Your task to perform on an android device: see sites visited before in the chrome app Image 0: 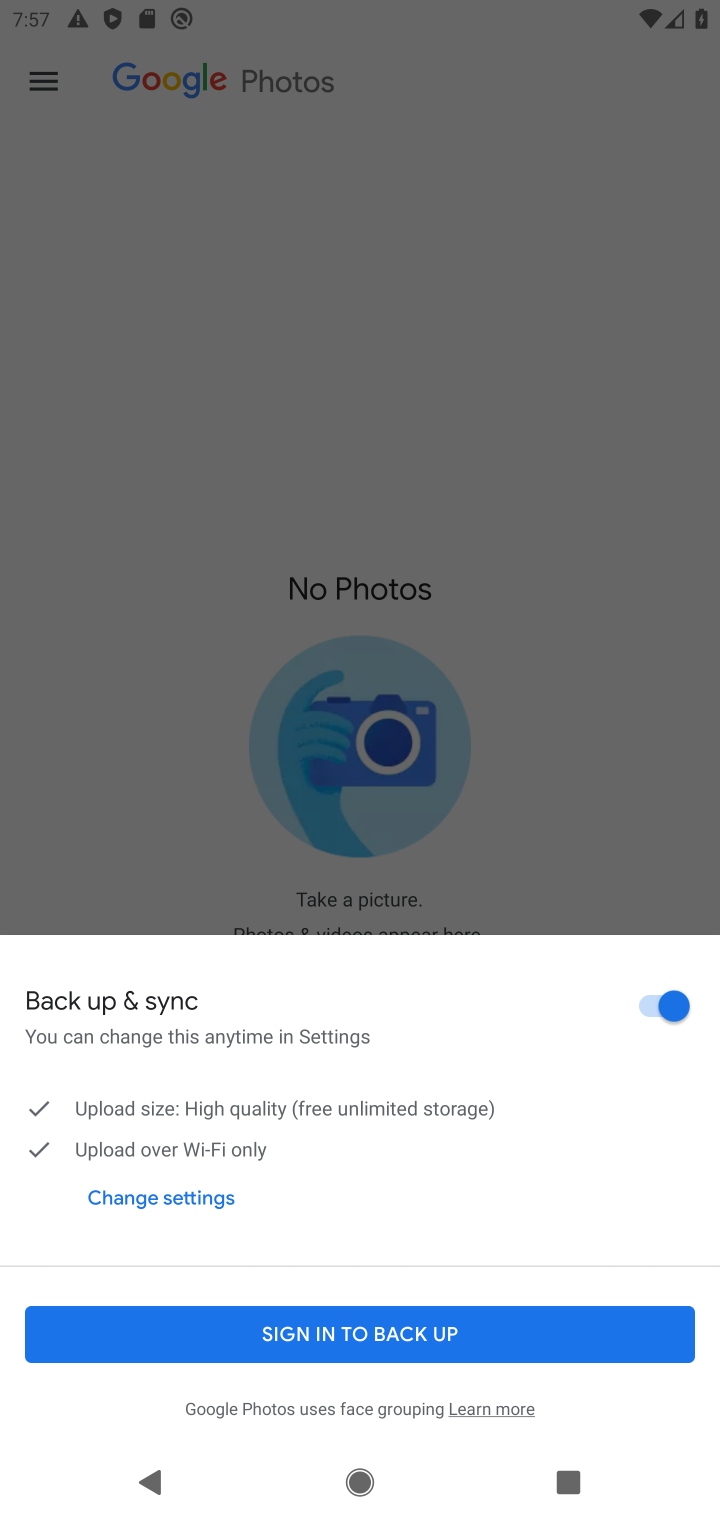
Step 0: press back button
Your task to perform on an android device: see sites visited before in the chrome app Image 1: 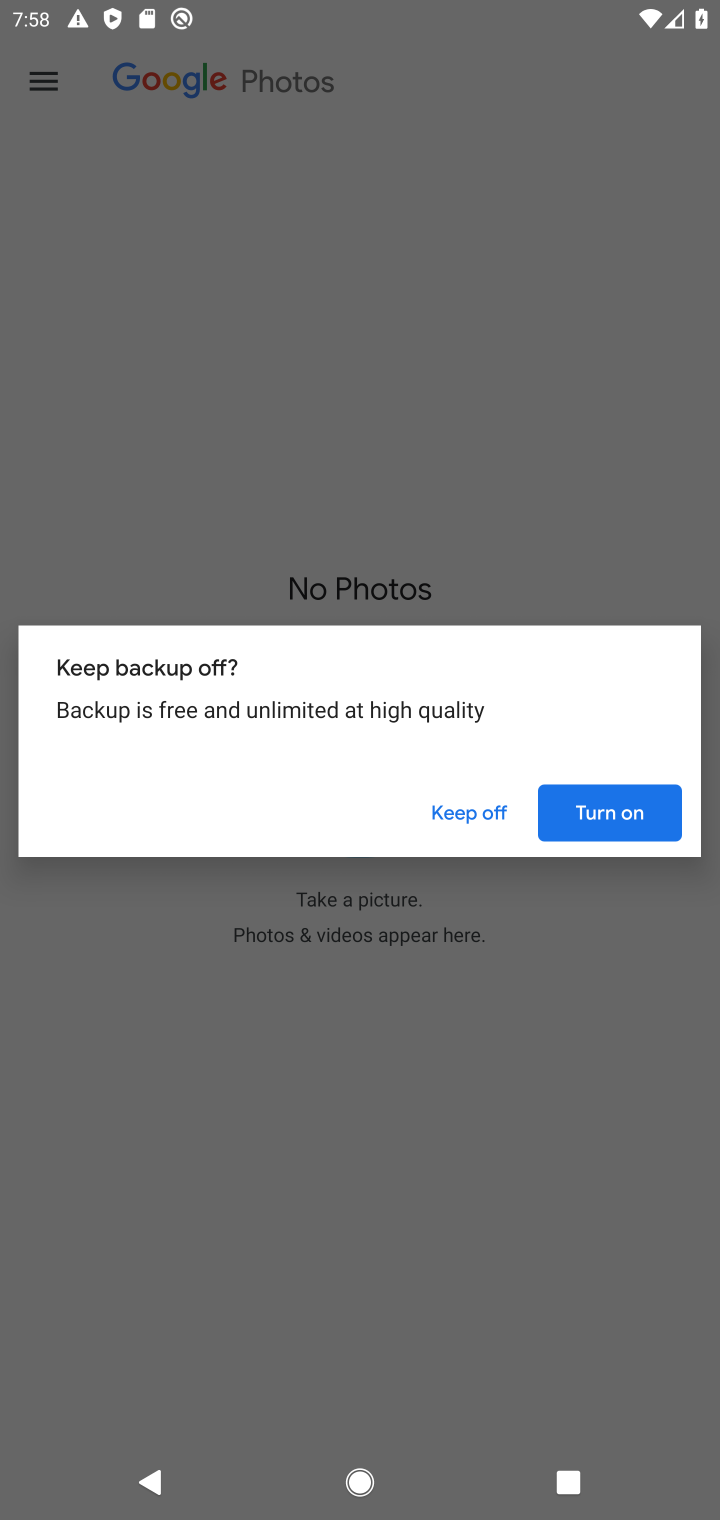
Step 1: press back button
Your task to perform on an android device: see sites visited before in the chrome app Image 2: 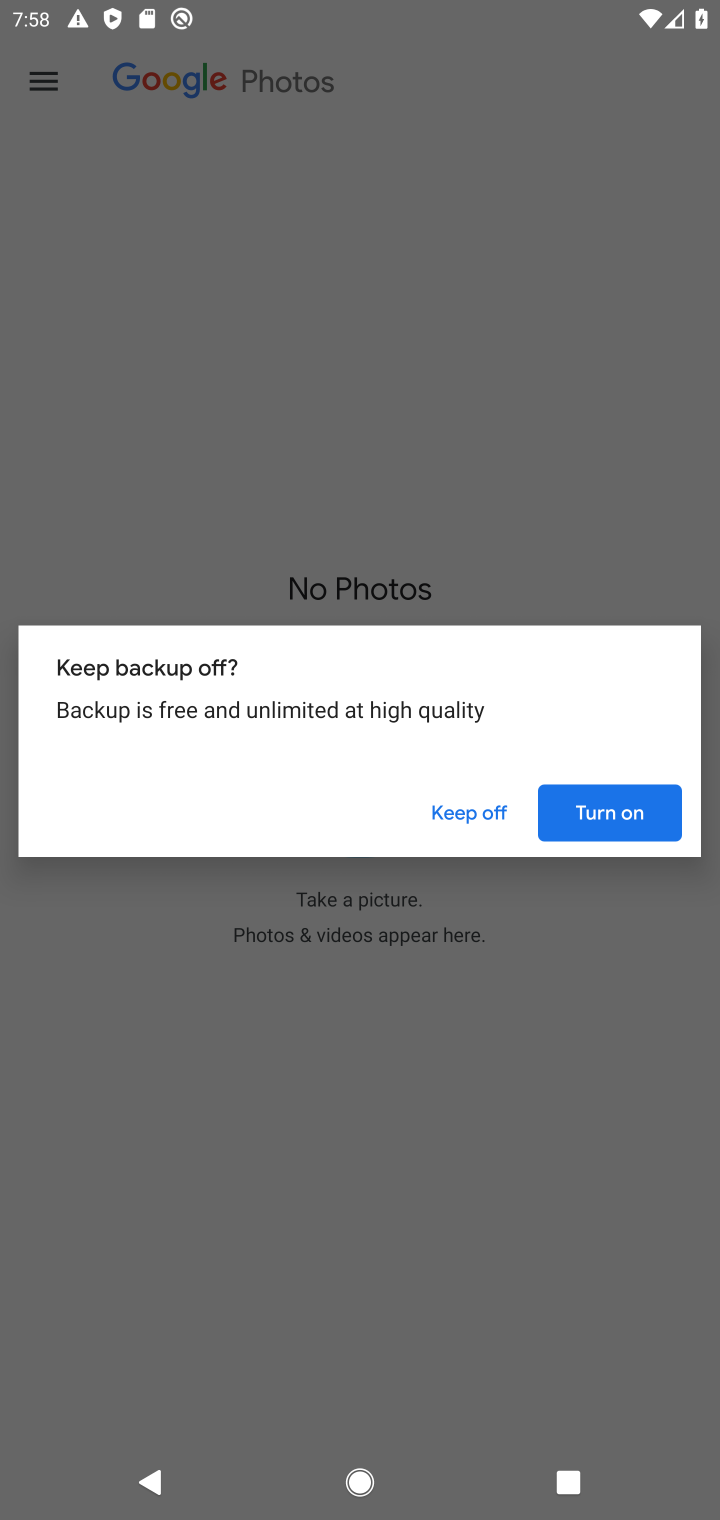
Step 2: press home button
Your task to perform on an android device: see sites visited before in the chrome app Image 3: 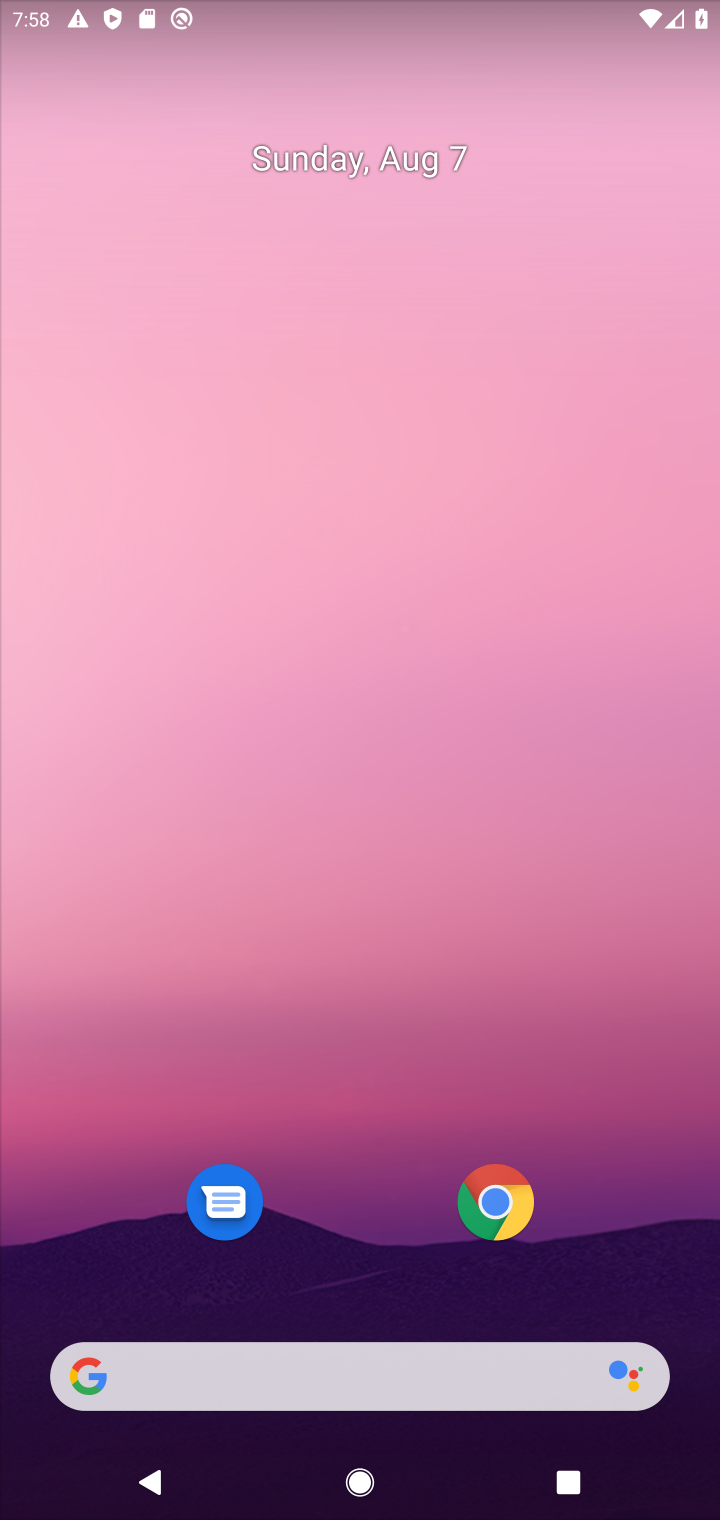
Step 3: click (490, 1223)
Your task to perform on an android device: see sites visited before in the chrome app Image 4: 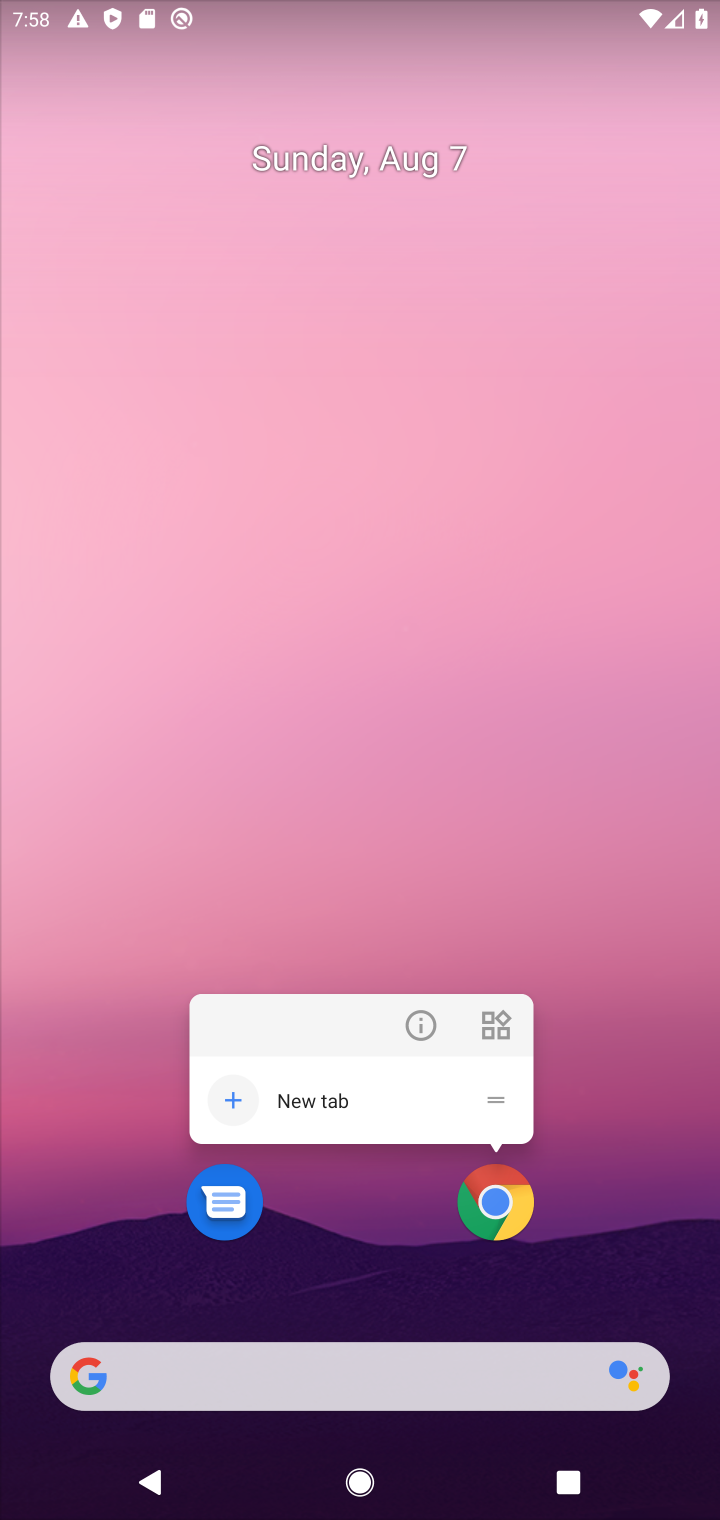
Step 4: click (500, 1217)
Your task to perform on an android device: see sites visited before in the chrome app Image 5: 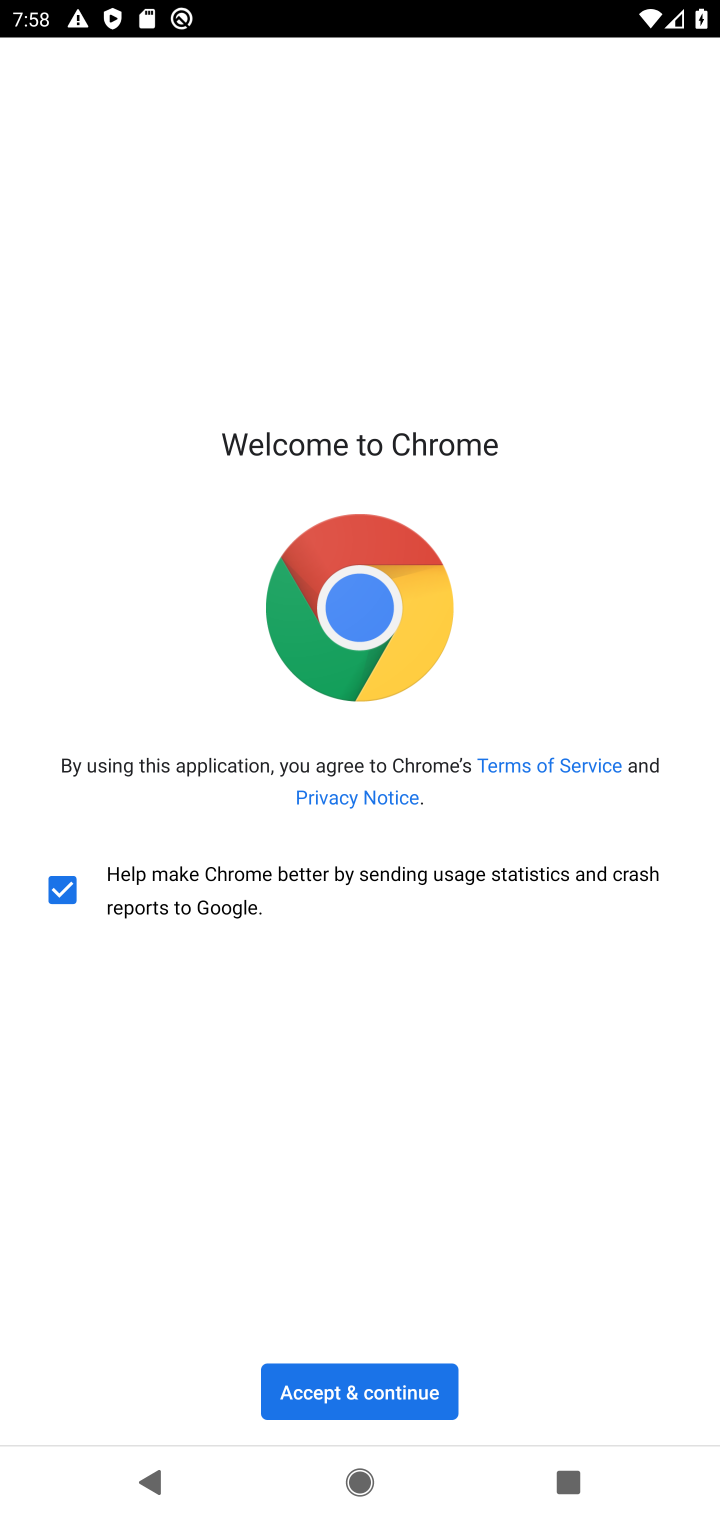
Step 5: click (325, 1393)
Your task to perform on an android device: see sites visited before in the chrome app Image 6: 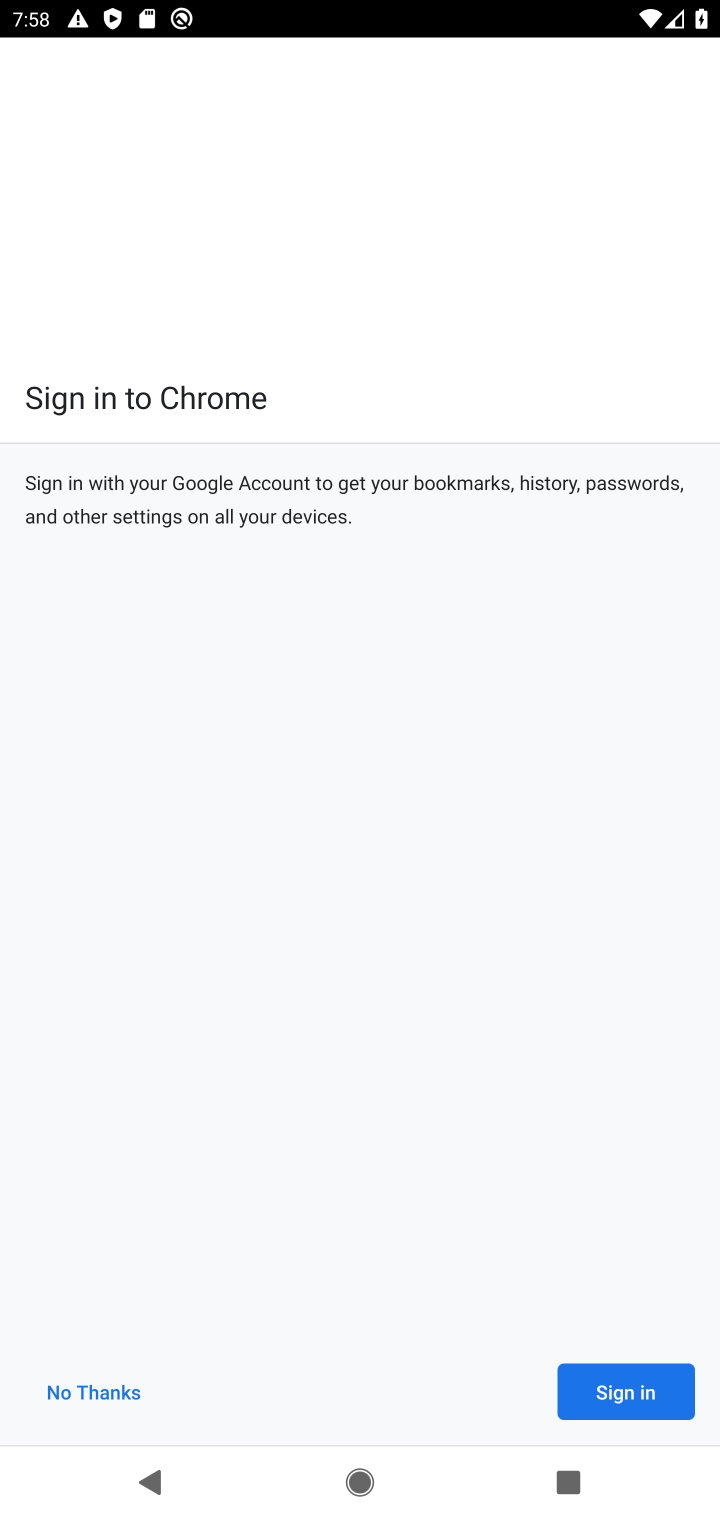
Step 6: click (101, 1389)
Your task to perform on an android device: see sites visited before in the chrome app Image 7: 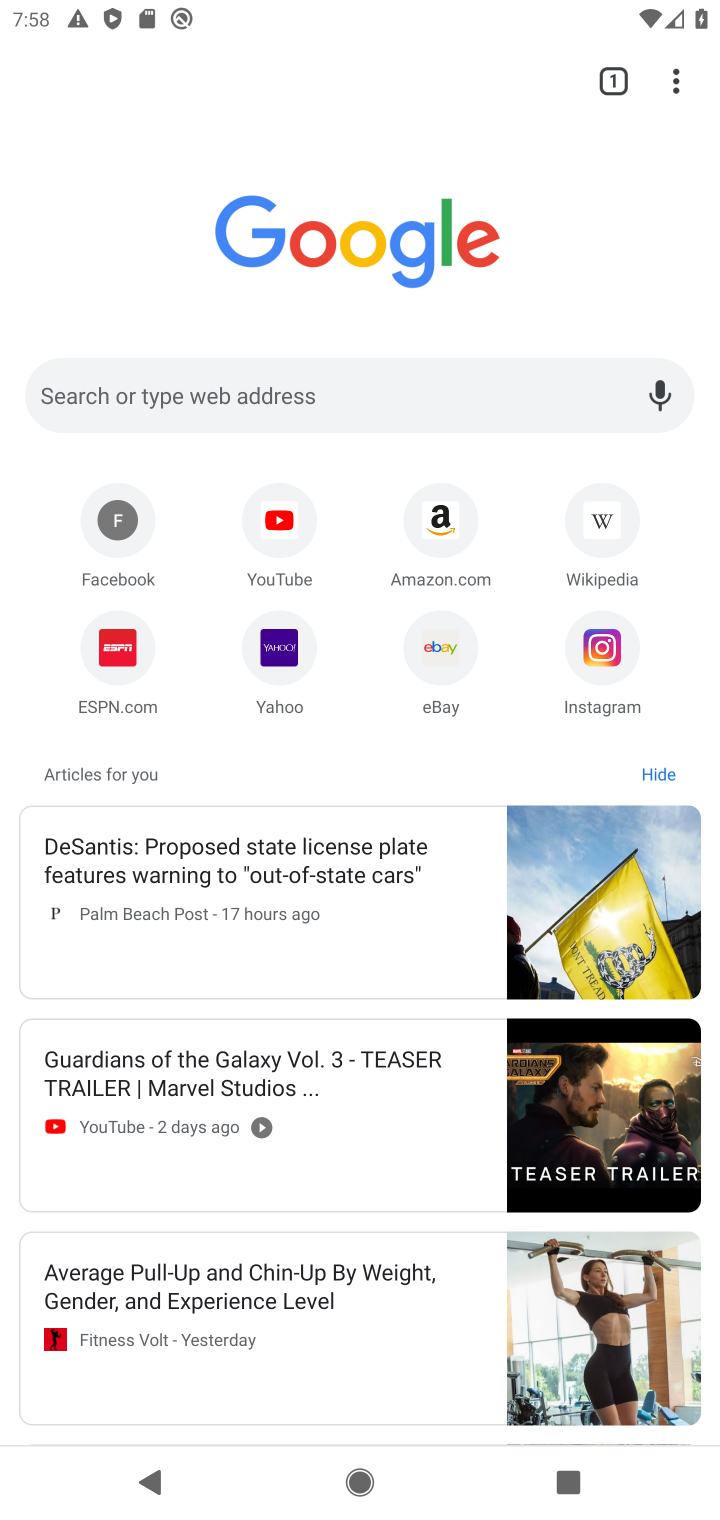
Step 7: task complete